Your task to perform on an android device: find snoozed emails in the gmail app Image 0: 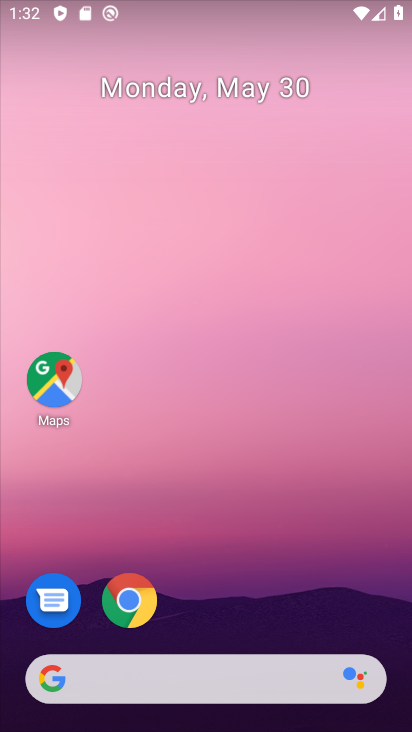
Step 0: drag from (207, 649) to (387, 103)
Your task to perform on an android device: find snoozed emails in the gmail app Image 1: 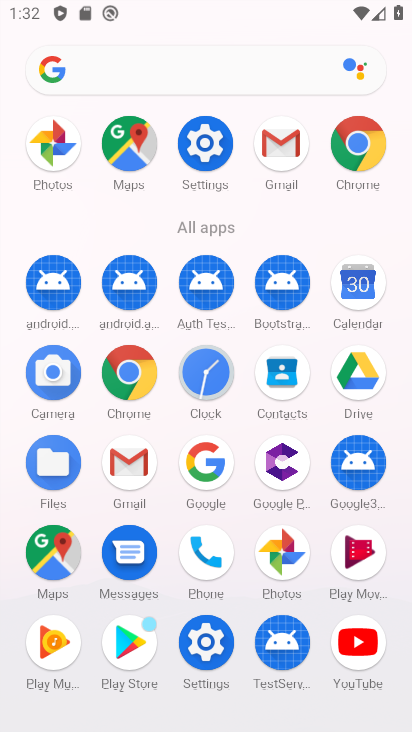
Step 1: click (136, 476)
Your task to perform on an android device: find snoozed emails in the gmail app Image 2: 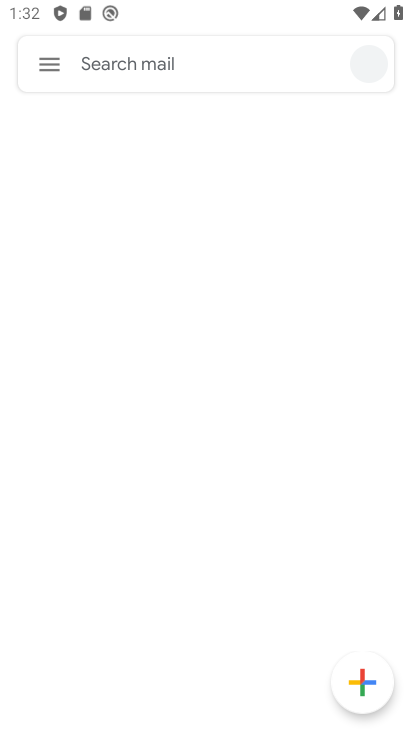
Step 2: click (41, 67)
Your task to perform on an android device: find snoozed emails in the gmail app Image 3: 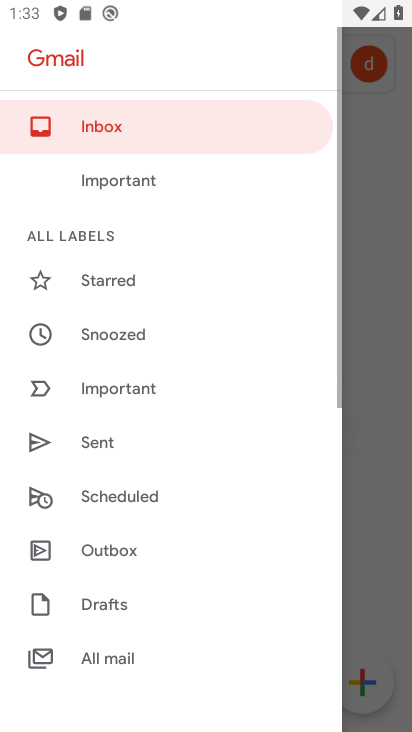
Step 3: click (97, 338)
Your task to perform on an android device: find snoozed emails in the gmail app Image 4: 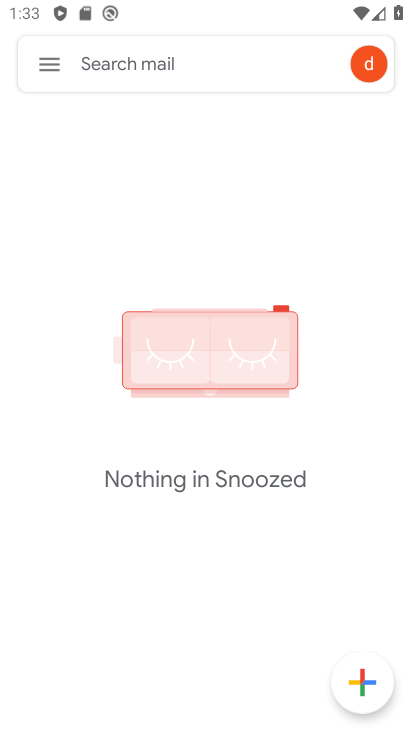
Step 4: task complete